Your task to perform on an android device: Go to Yahoo.com Image 0: 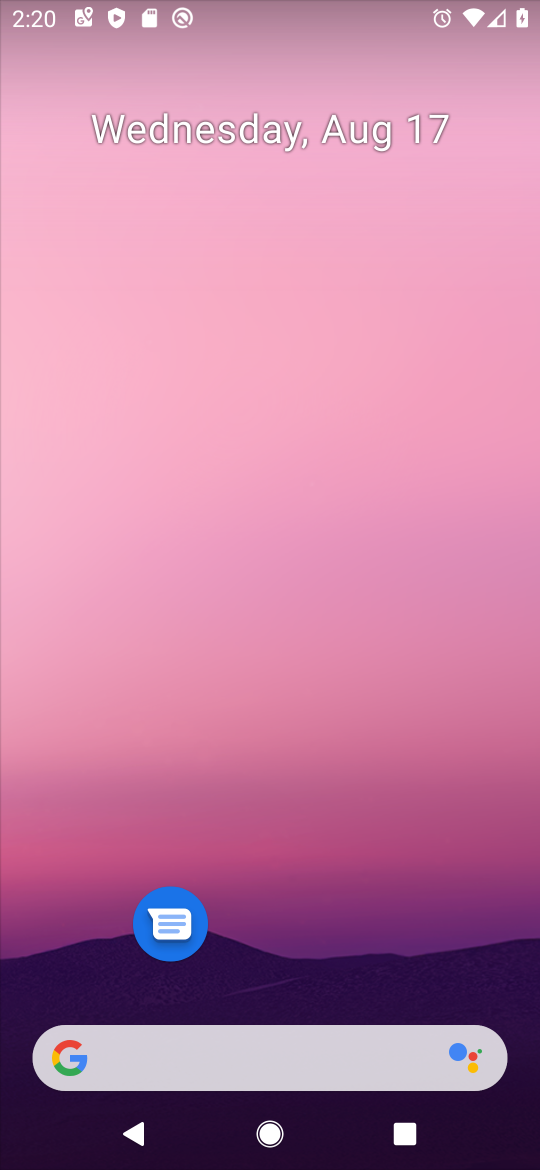
Step 0: press home button
Your task to perform on an android device: Go to Yahoo.com Image 1: 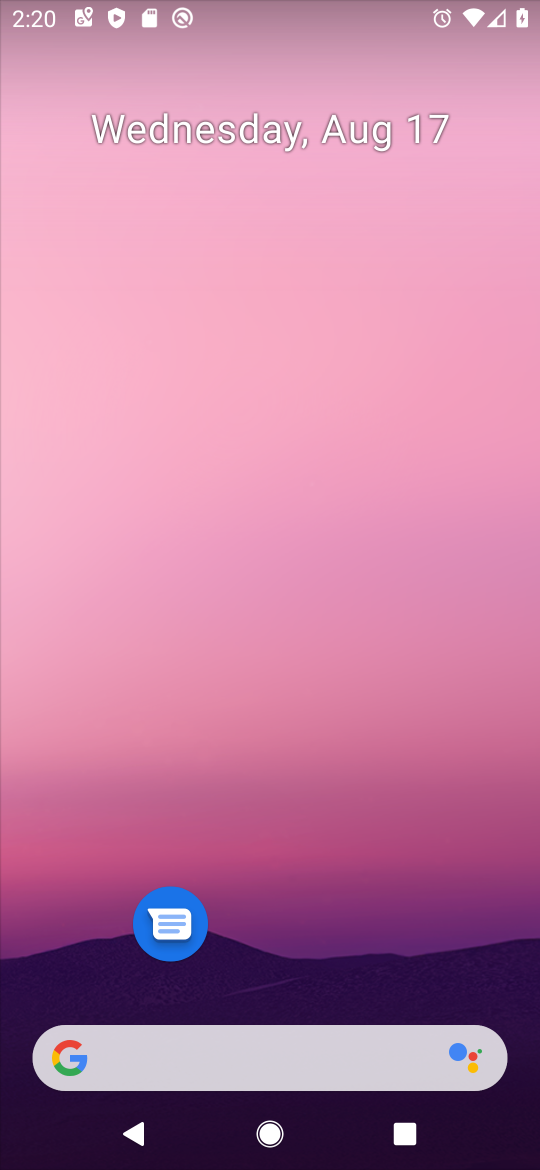
Step 1: drag from (226, 980) to (178, 256)
Your task to perform on an android device: Go to Yahoo.com Image 2: 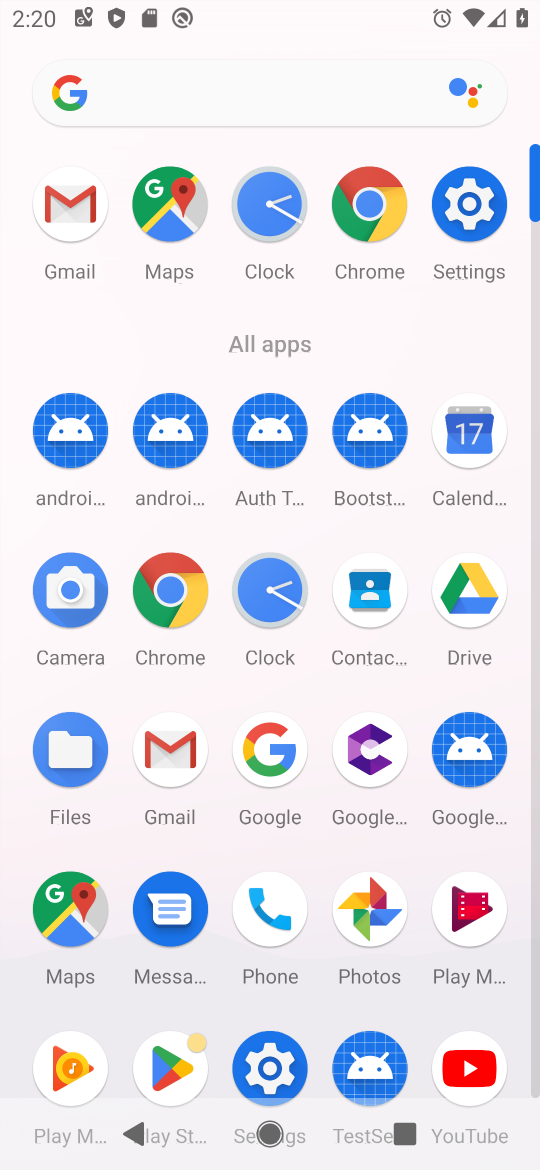
Step 2: click (358, 228)
Your task to perform on an android device: Go to Yahoo.com Image 3: 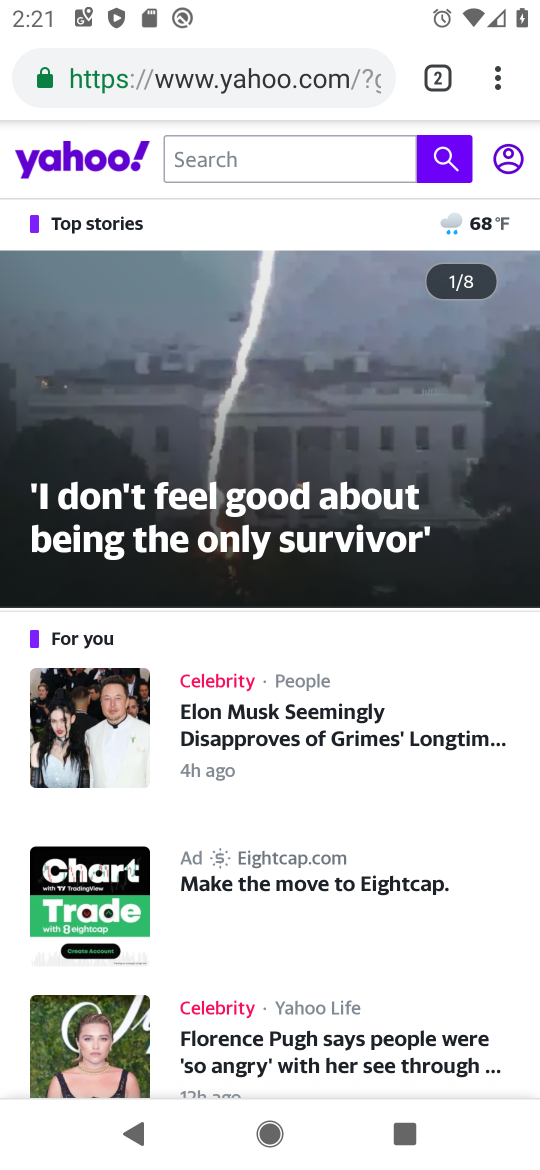
Step 3: task complete